Your task to perform on an android device: Search for pizza restaurants on Maps Image 0: 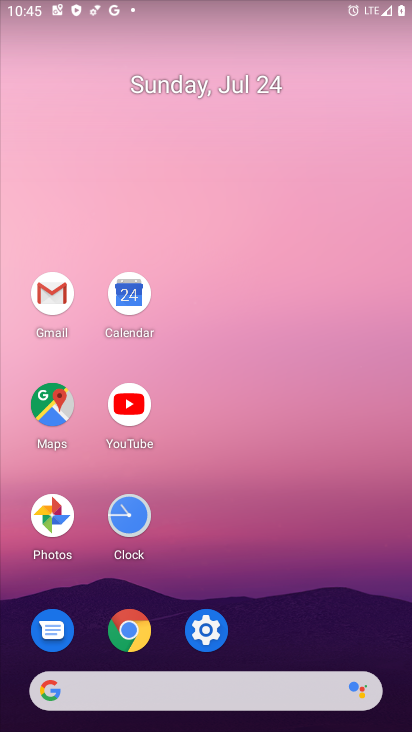
Step 0: click (40, 404)
Your task to perform on an android device: Search for pizza restaurants on Maps Image 1: 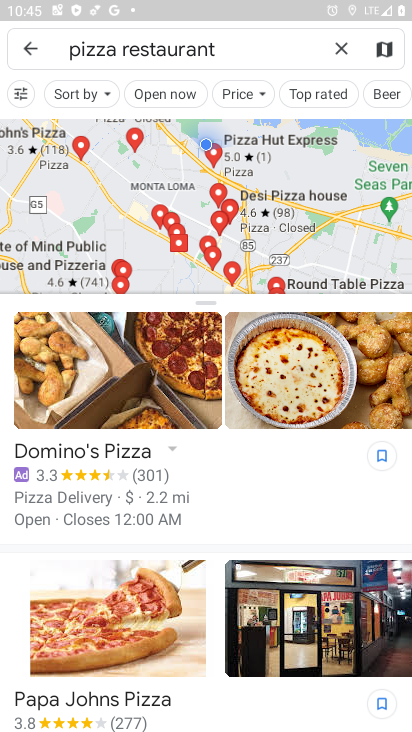
Step 1: task complete